Your task to perform on an android device: What's the news this afternoon? Image 0: 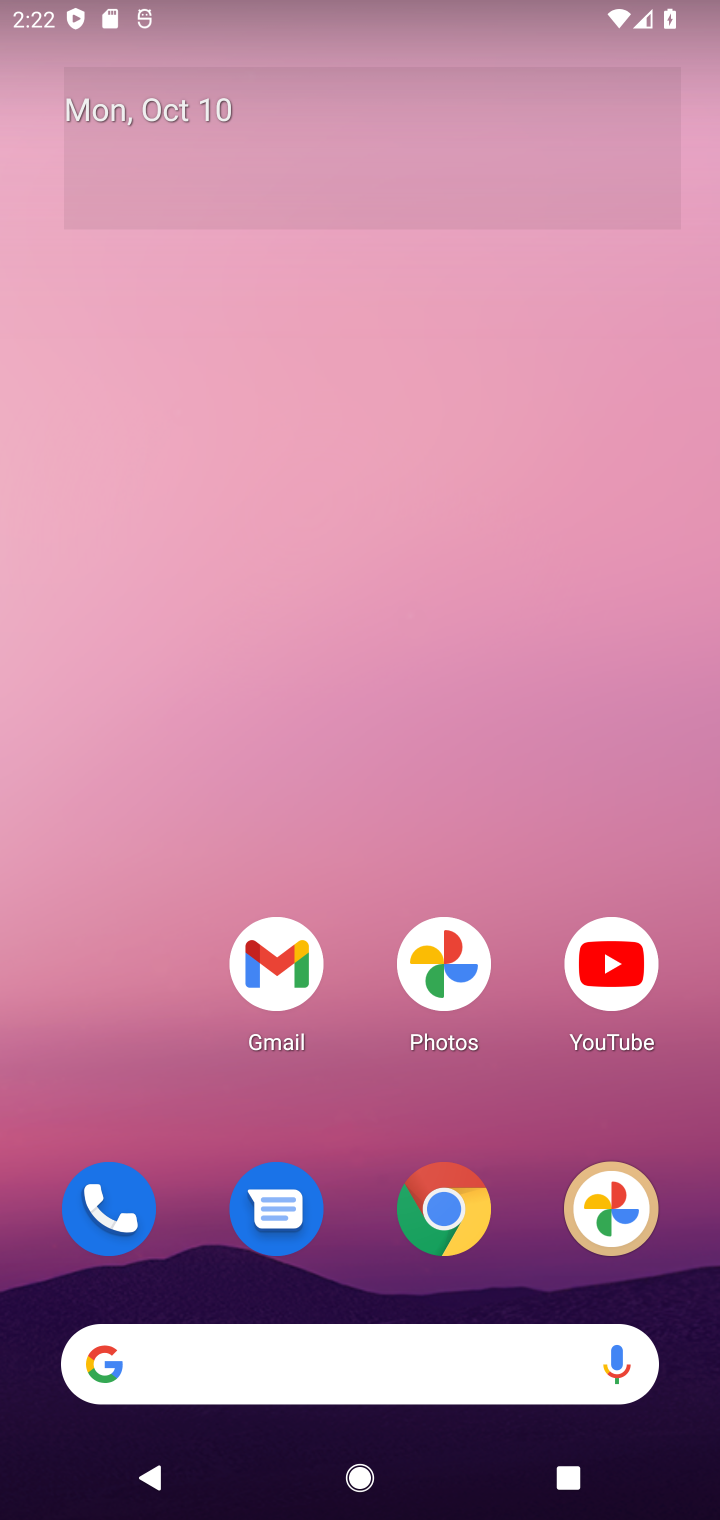
Step 0: click (450, 1187)
Your task to perform on an android device: What's the news this afternoon? Image 1: 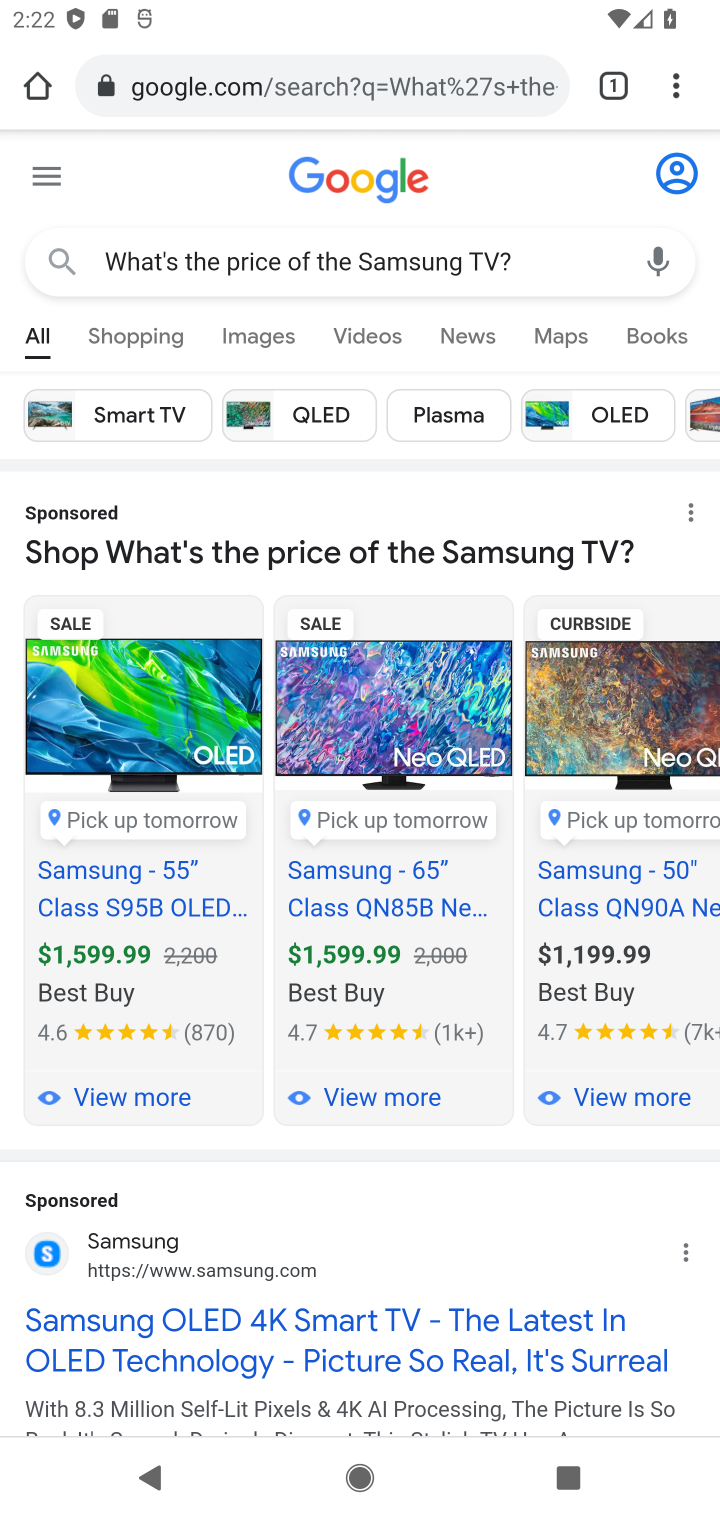
Step 1: click (530, 255)
Your task to perform on an android device: What's the news this afternoon? Image 2: 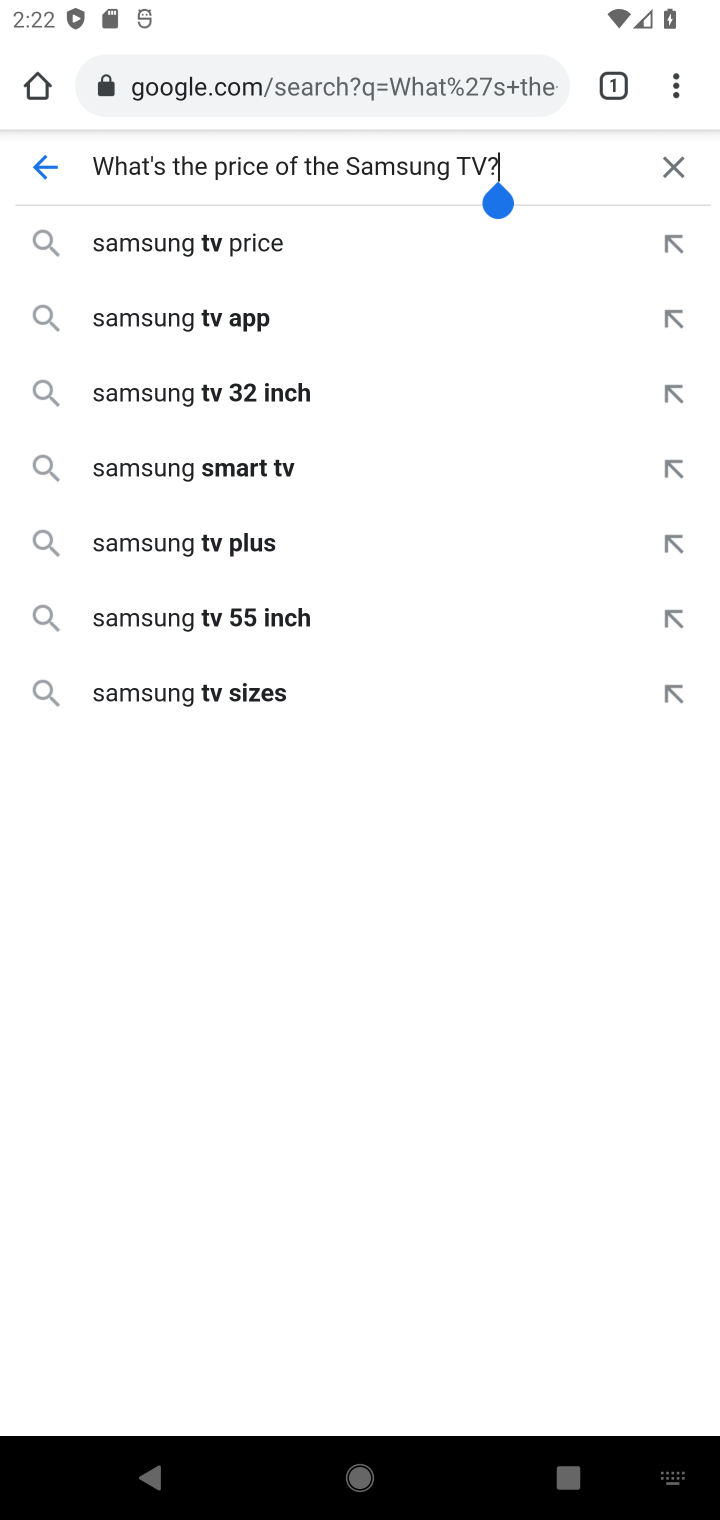
Step 2: click (672, 181)
Your task to perform on an android device: What's the news this afternoon? Image 3: 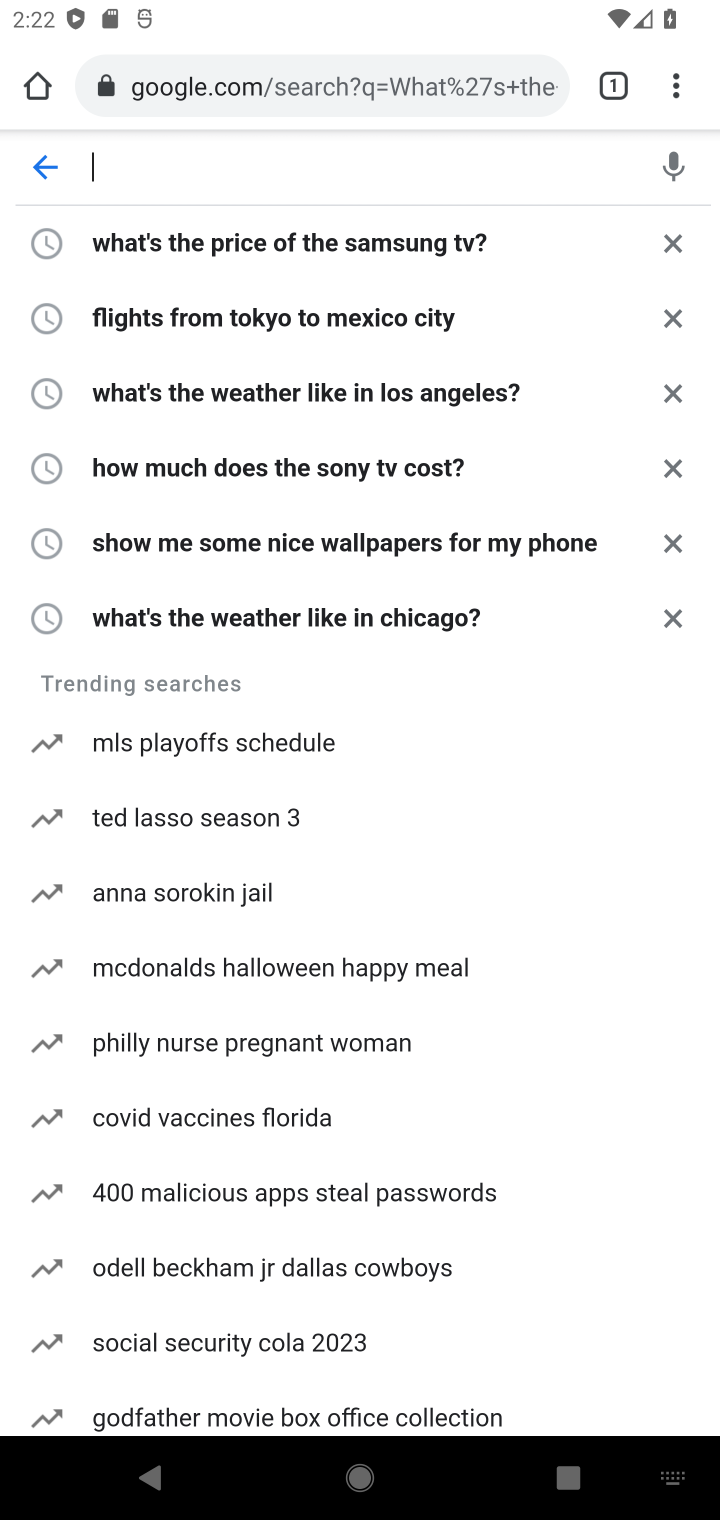
Step 3: type "news this afternoon?"
Your task to perform on an android device: What's the news this afternoon? Image 4: 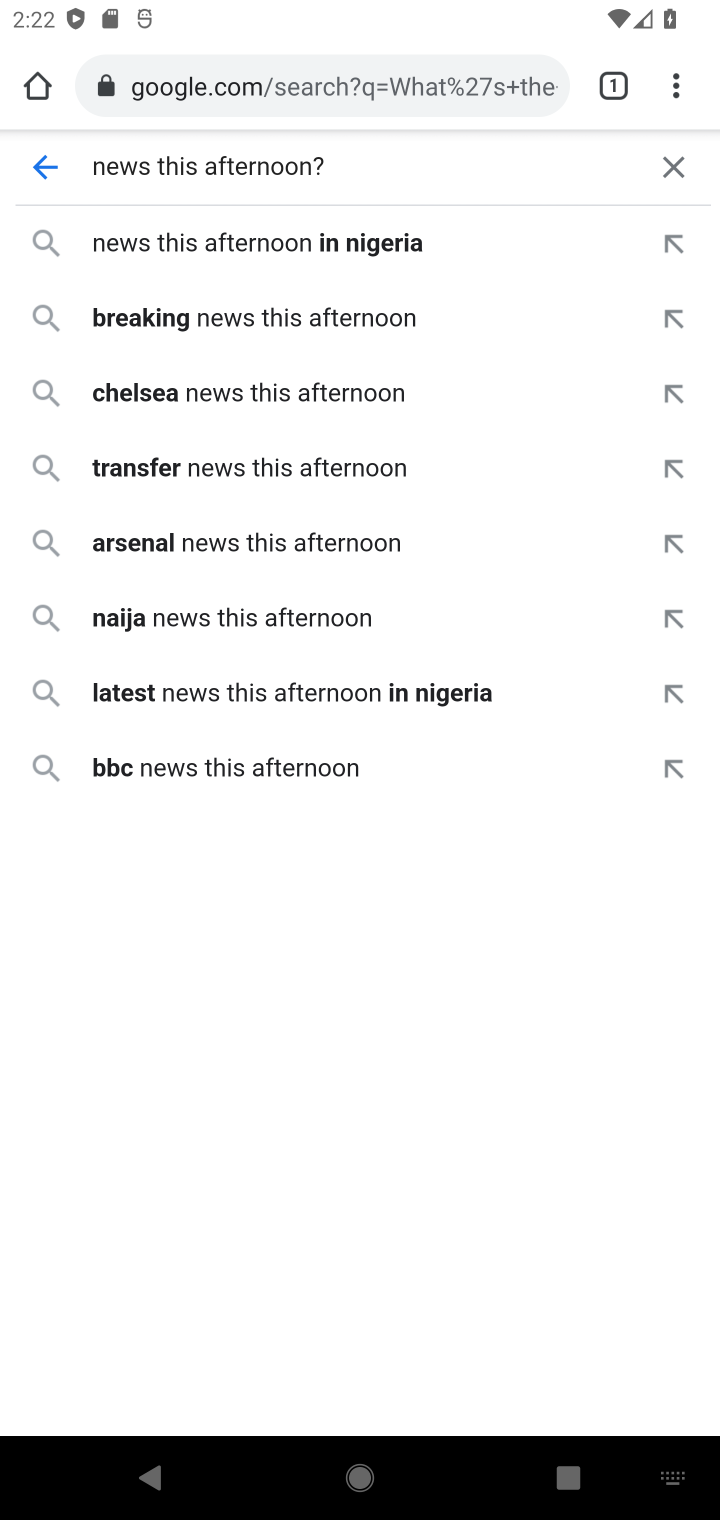
Step 4: press enter
Your task to perform on an android device: What's the news this afternoon? Image 5: 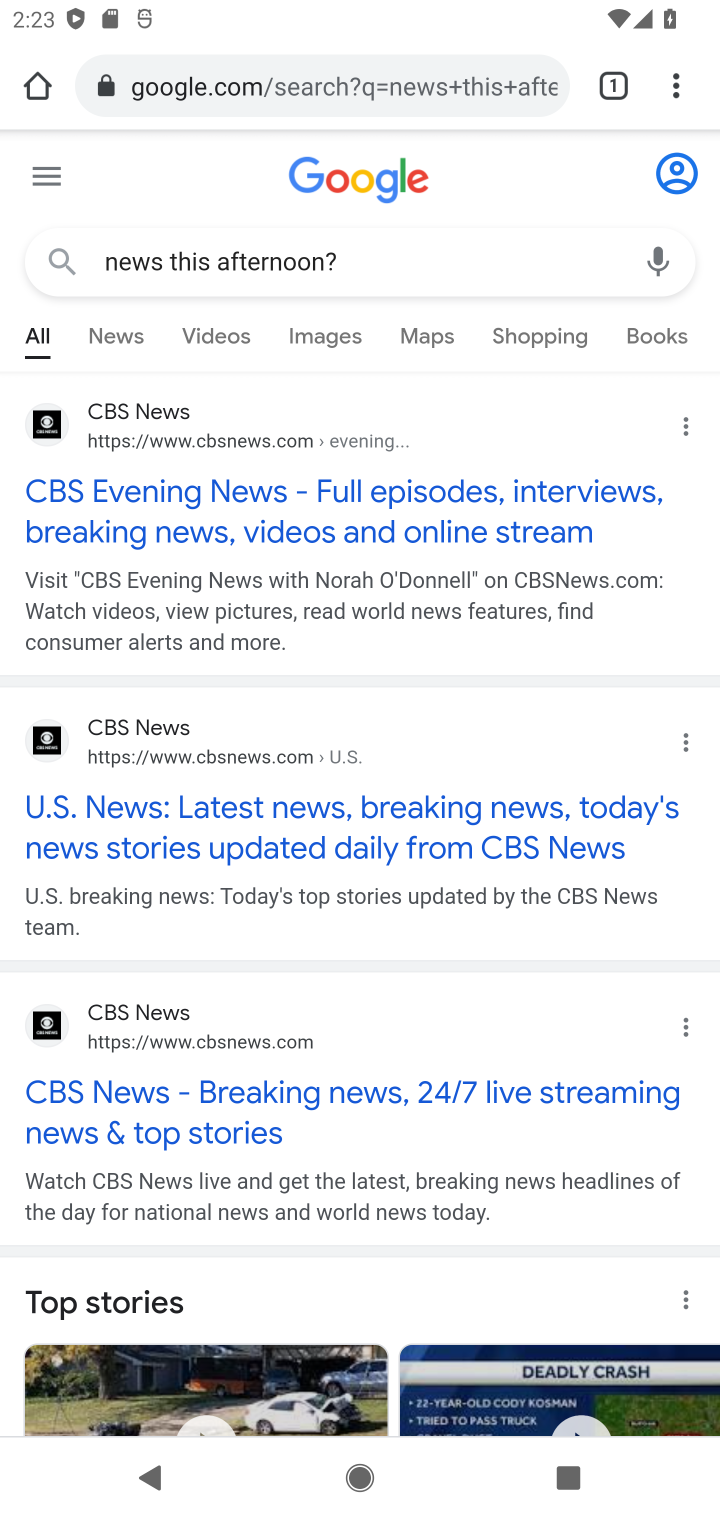
Step 5: click (100, 340)
Your task to perform on an android device: What's the news this afternoon? Image 6: 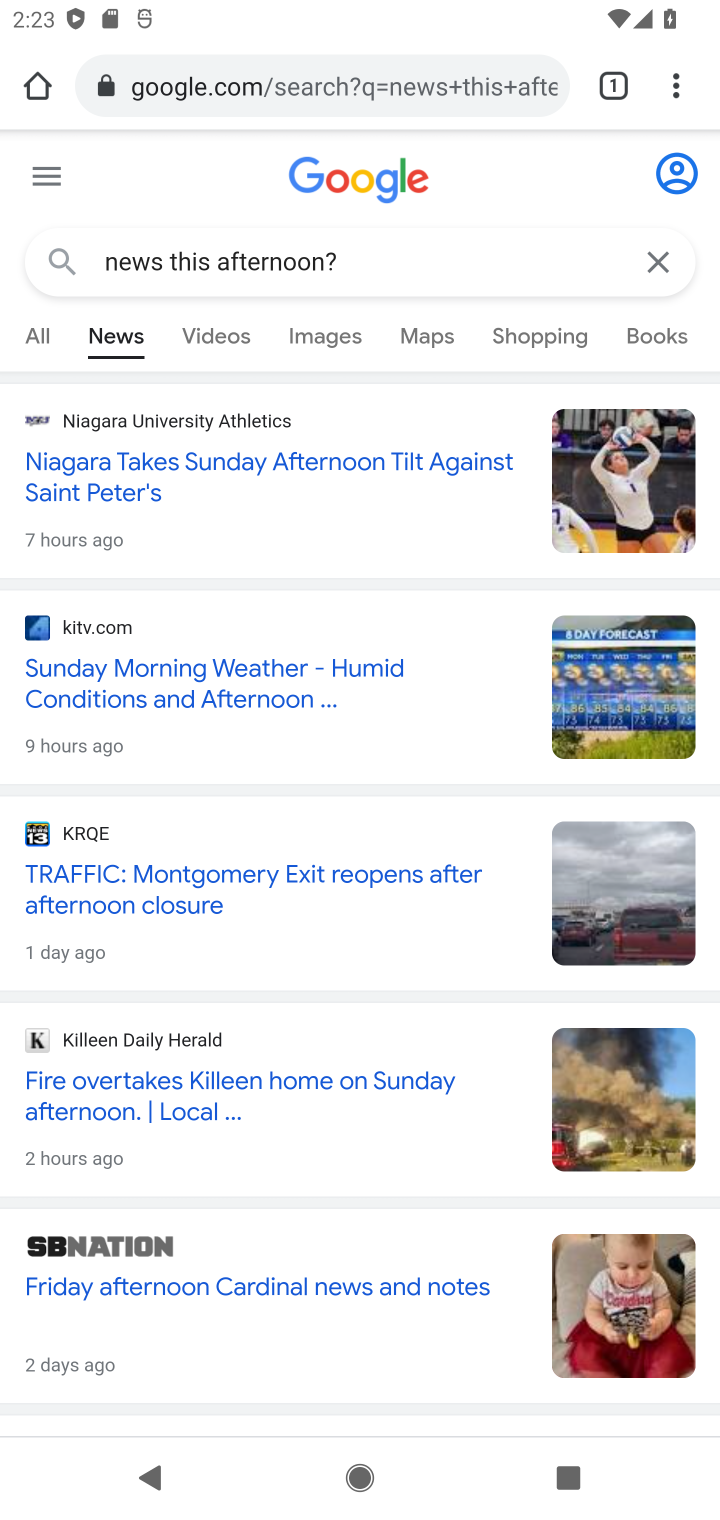
Step 6: task complete